Your task to perform on an android device: What's the weather? Image 0: 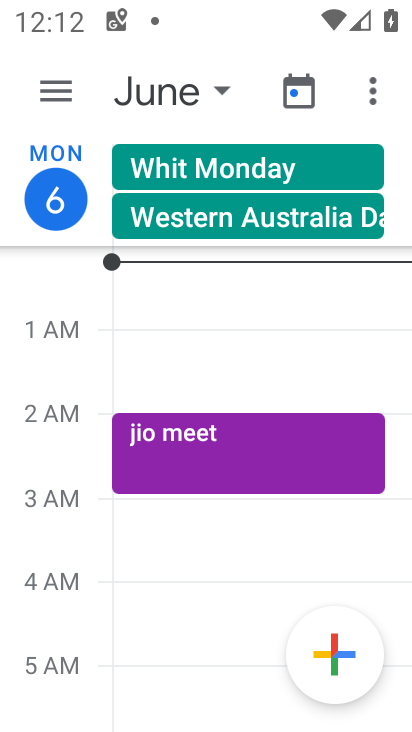
Step 0: press home button
Your task to perform on an android device: What's the weather? Image 1: 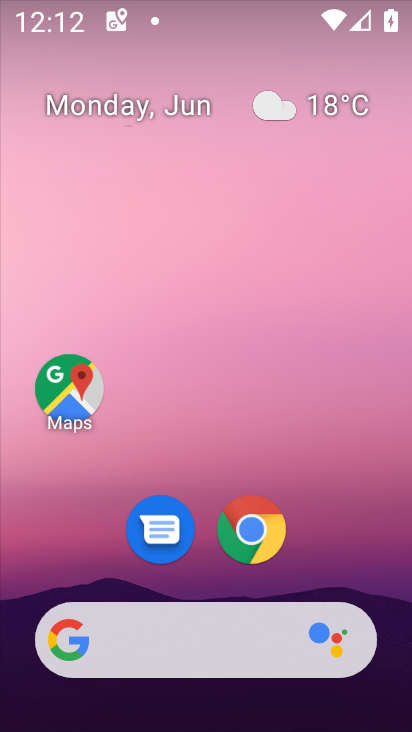
Step 1: click (290, 107)
Your task to perform on an android device: What's the weather? Image 2: 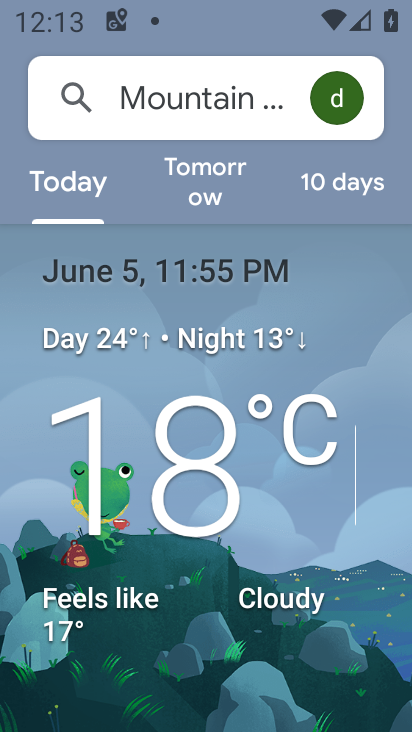
Step 2: task complete